Your task to perform on an android device: open sync settings in chrome Image 0: 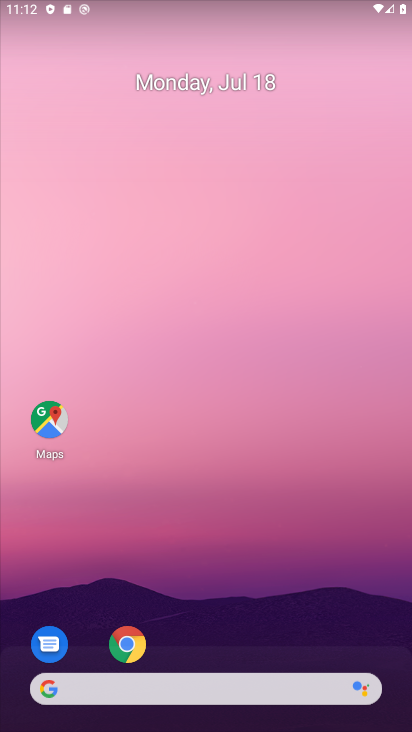
Step 0: drag from (220, 654) to (366, 20)
Your task to perform on an android device: open sync settings in chrome Image 1: 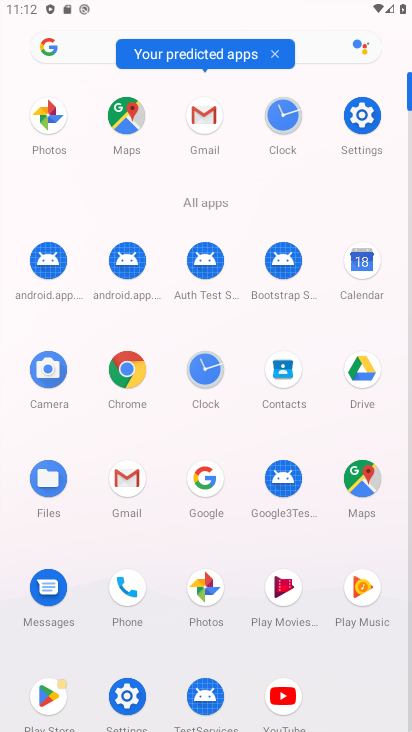
Step 1: click (120, 377)
Your task to perform on an android device: open sync settings in chrome Image 2: 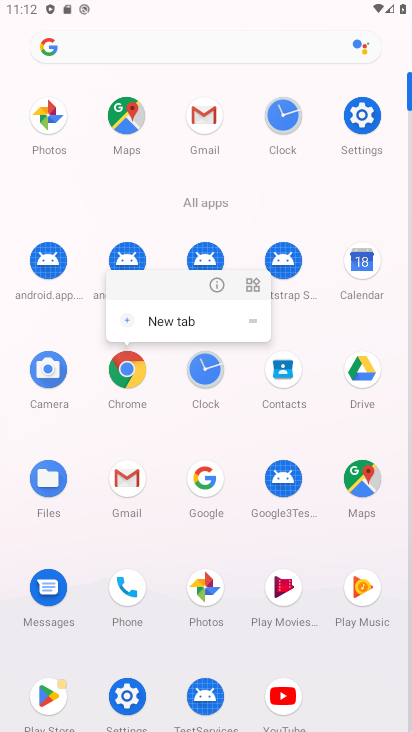
Step 2: click (122, 376)
Your task to perform on an android device: open sync settings in chrome Image 3: 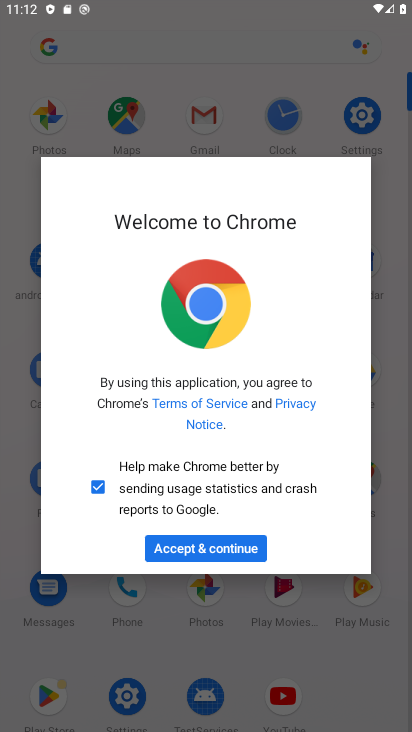
Step 3: click (222, 538)
Your task to perform on an android device: open sync settings in chrome Image 4: 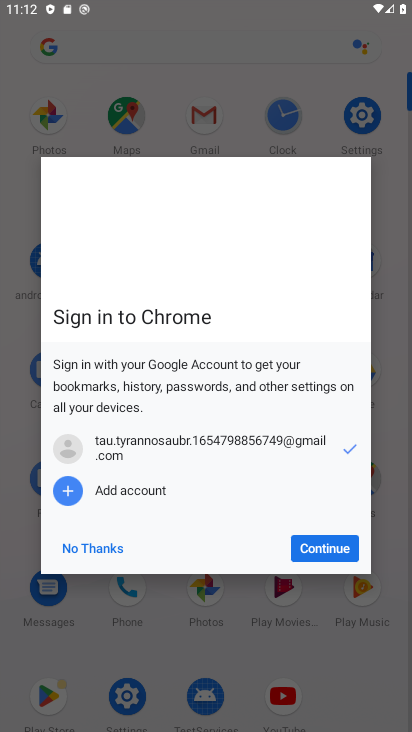
Step 4: click (323, 543)
Your task to perform on an android device: open sync settings in chrome Image 5: 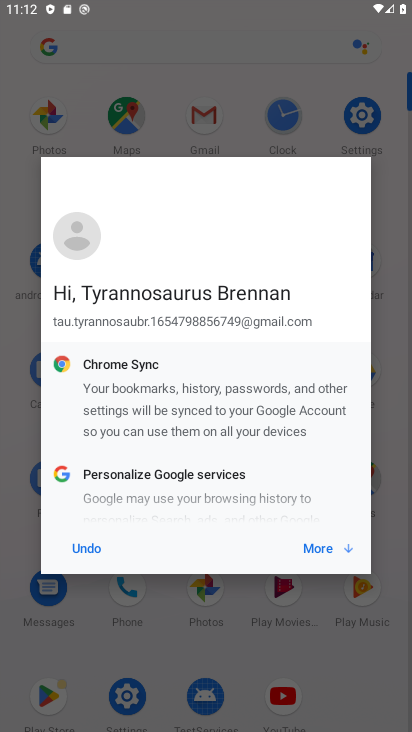
Step 5: click (321, 537)
Your task to perform on an android device: open sync settings in chrome Image 6: 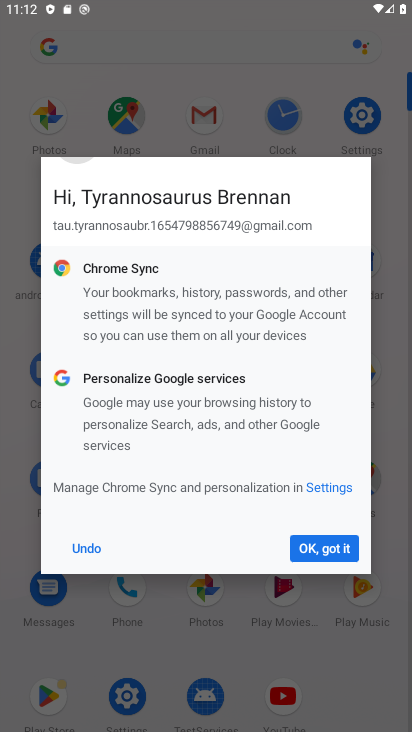
Step 6: click (304, 545)
Your task to perform on an android device: open sync settings in chrome Image 7: 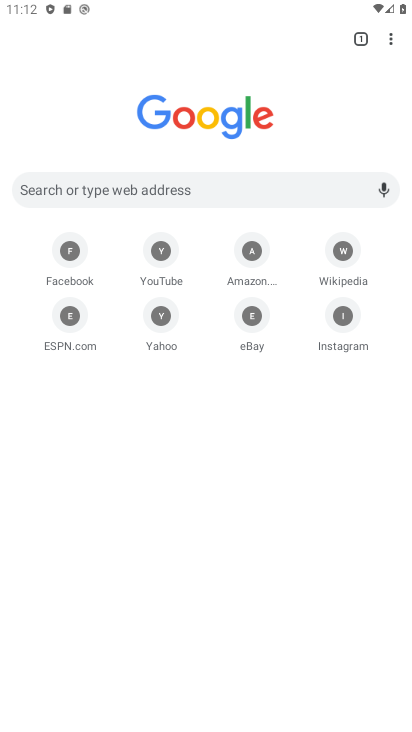
Step 7: drag from (390, 40) to (279, 323)
Your task to perform on an android device: open sync settings in chrome Image 8: 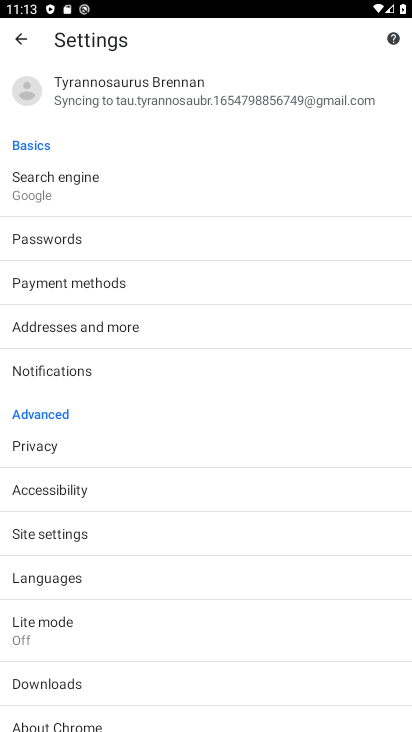
Step 8: click (94, 90)
Your task to perform on an android device: open sync settings in chrome Image 9: 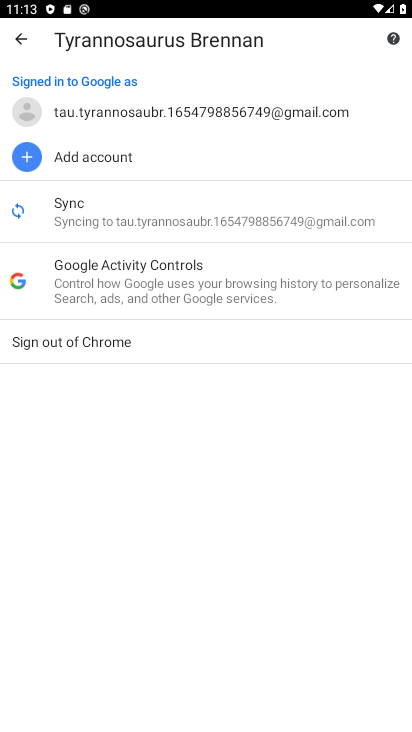
Step 9: click (105, 190)
Your task to perform on an android device: open sync settings in chrome Image 10: 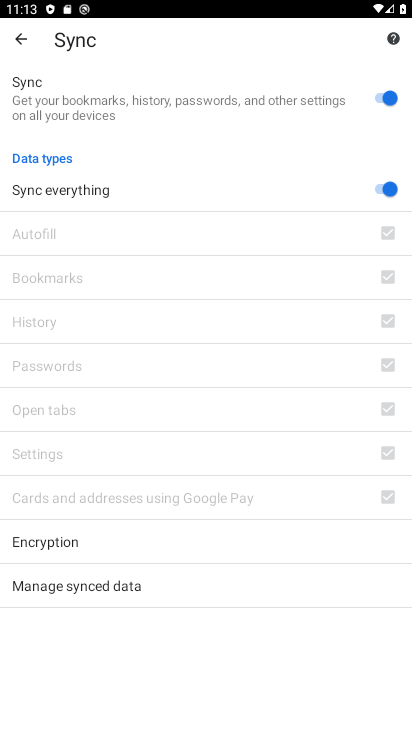
Step 10: task complete